Your task to perform on an android device: Open Google Image 0: 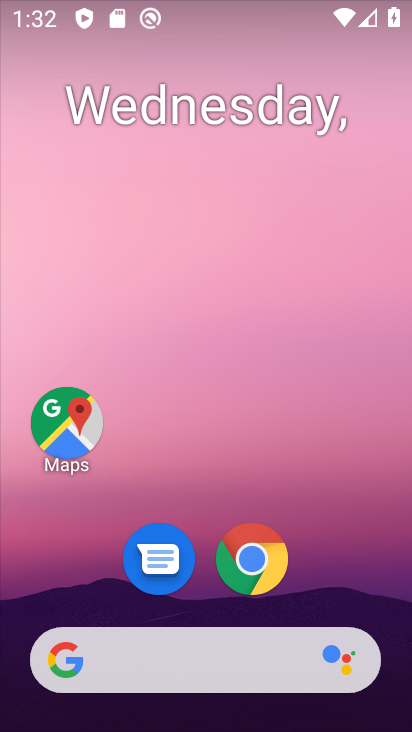
Step 0: click (411, 432)
Your task to perform on an android device: Open Google Image 1: 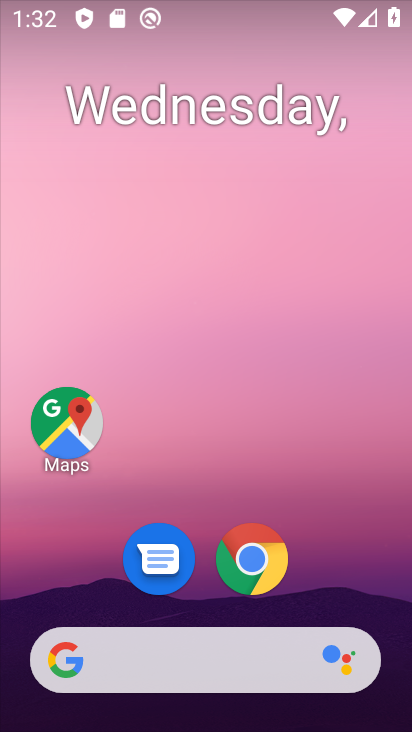
Step 1: drag from (169, 673) to (72, 38)
Your task to perform on an android device: Open Google Image 2: 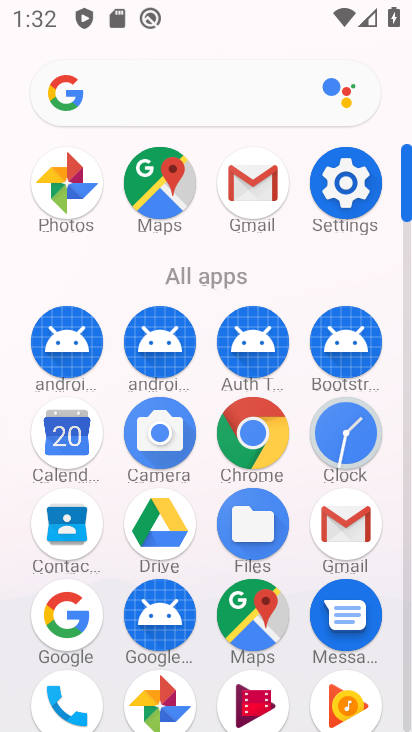
Step 2: click (73, 626)
Your task to perform on an android device: Open Google Image 3: 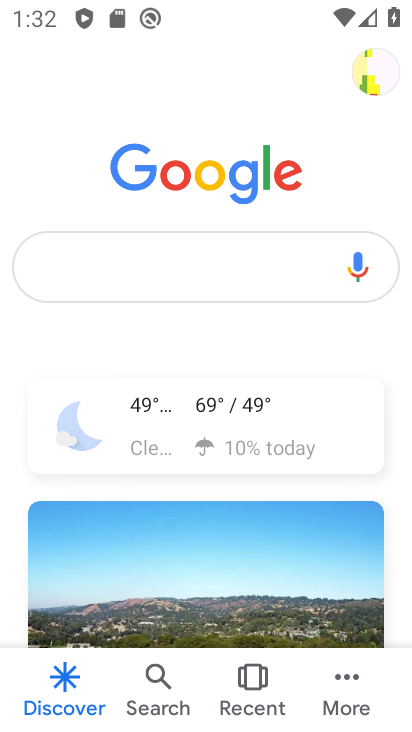
Step 3: task complete